Your task to perform on an android device: Open settings Image 0: 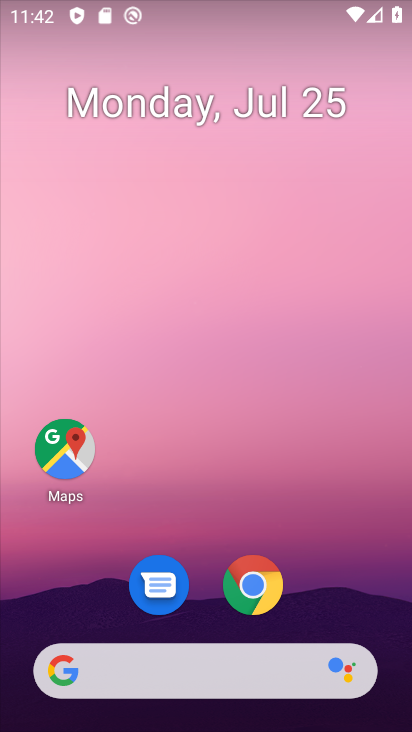
Step 0: drag from (348, 583) to (336, 44)
Your task to perform on an android device: Open settings Image 1: 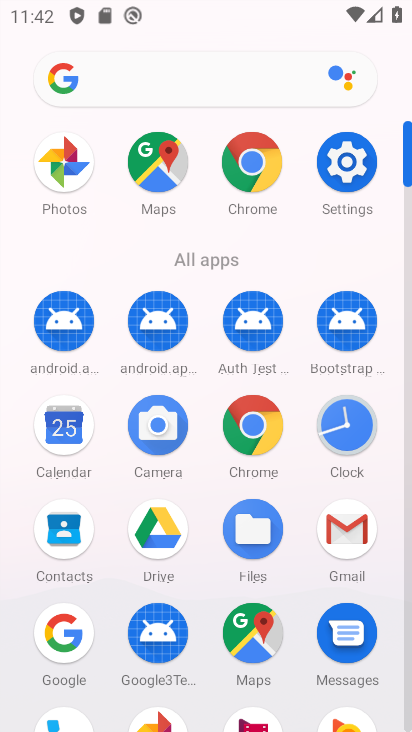
Step 1: click (347, 174)
Your task to perform on an android device: Open settings Image 2: 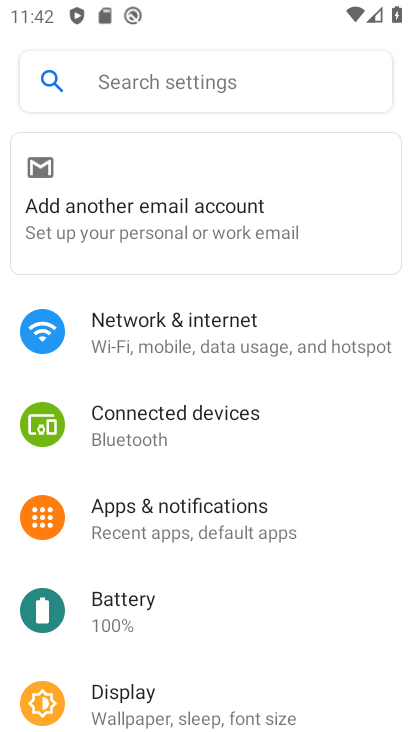
Step 2: task complete